Your task to perform on an android device: stop showing notifications on the lock screen Image 0: 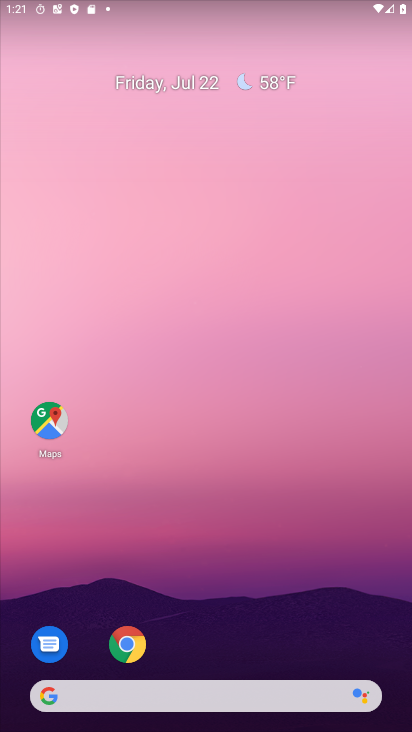
Step 0: click (322, 137)
Your task to perform on an android device: stop showing notifications on the lock screen Image 1: 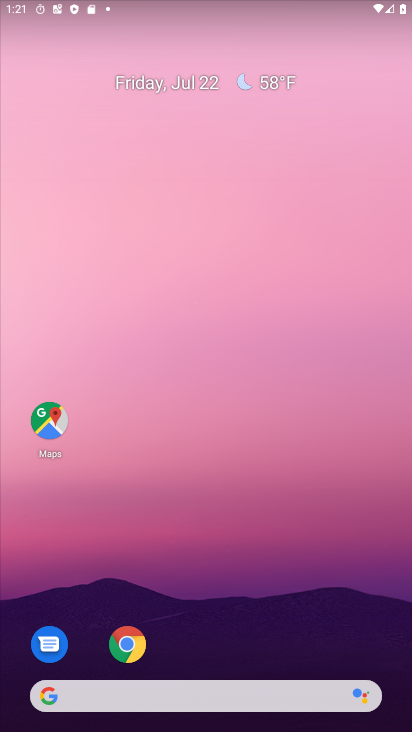
Step 1: drag from (172, 638) to (205, 53)
Your task to perform on an android device: stop showing notifications on the lock screen Image 2: 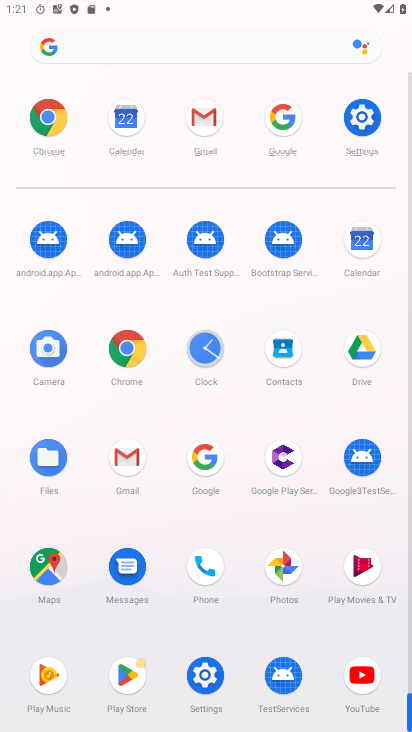
Step 2: click (369, 126)
Your task to perform on an android device: stop showing notifications on the lock screen Image 3: 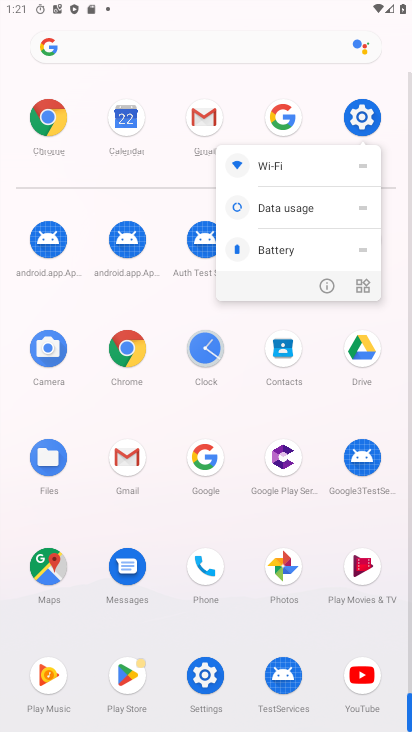
Step 3: click (323, 279)
Your task to perform on an android device: stop showing notifications on the lock screen Image 4: 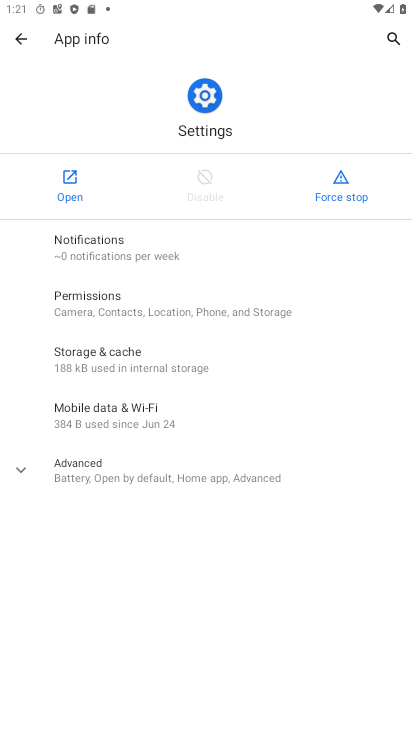
Step 4: click (73, 179)
Your task to perform on an android device: stop showing notifications on the lock screen Image 5: 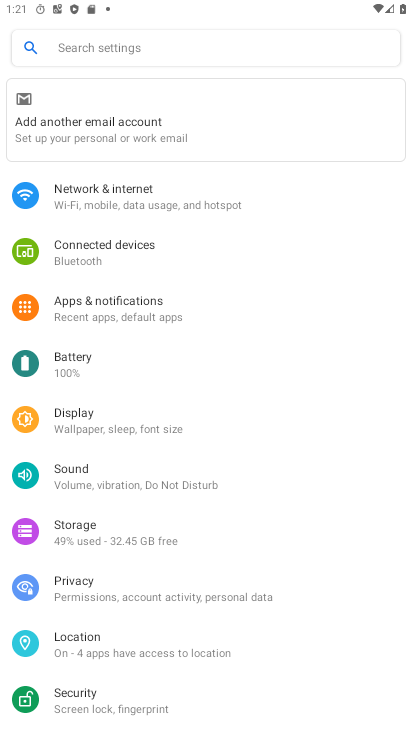
Step 5: click (152, 320)
Your task to perform on an android device: stop showing notifications on the lock screen Image 6: 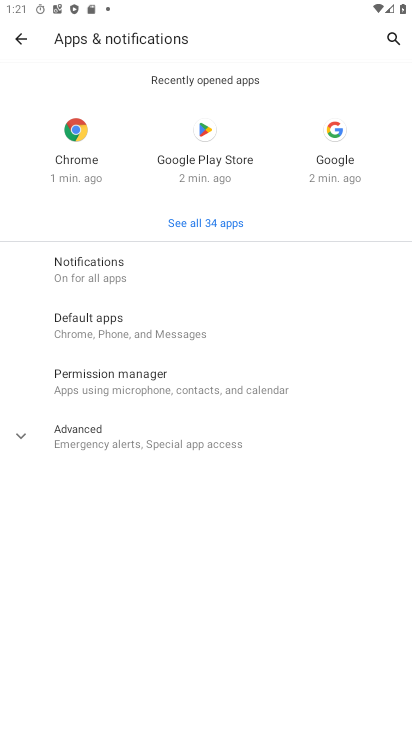
Step 6: click (129, 272)
Your task to perform on an android device: stop showing notifications on the lock screen Image 7: 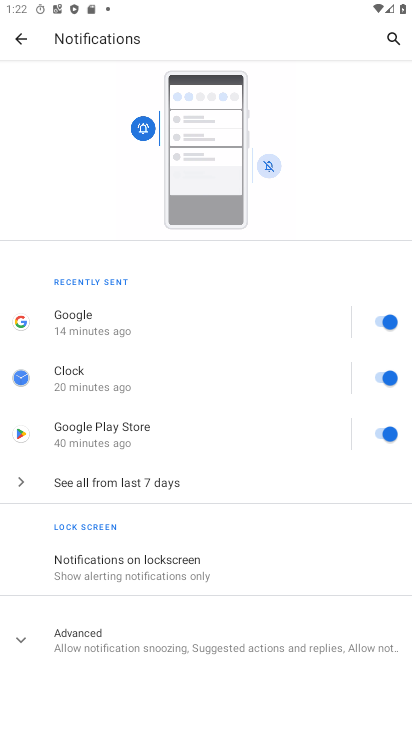
Step 7: click (112, 564)
Your task to perform on an android device: stop showing notifications on the lock screen Image 8: 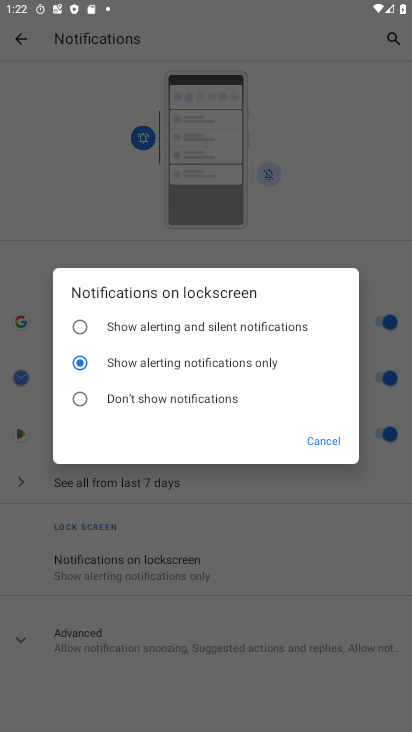
Step 8: click (120, 400)
Your task to perform on an android device: stop showing notifications on the lock screen Image 9: 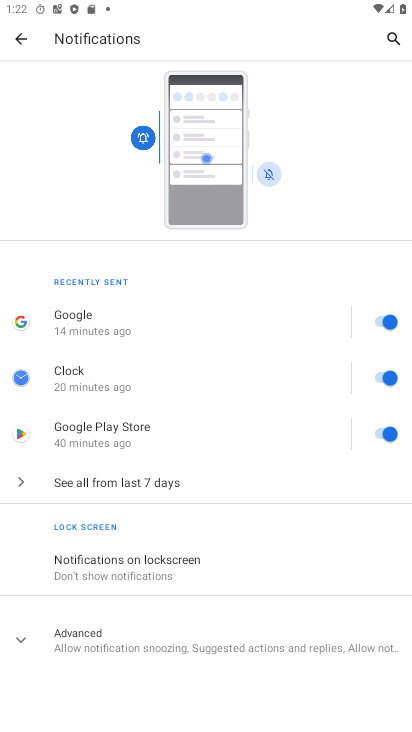
Step 9: task complete